Your task to perform on an android device: find snoozed emails in the gmail app Image 0: 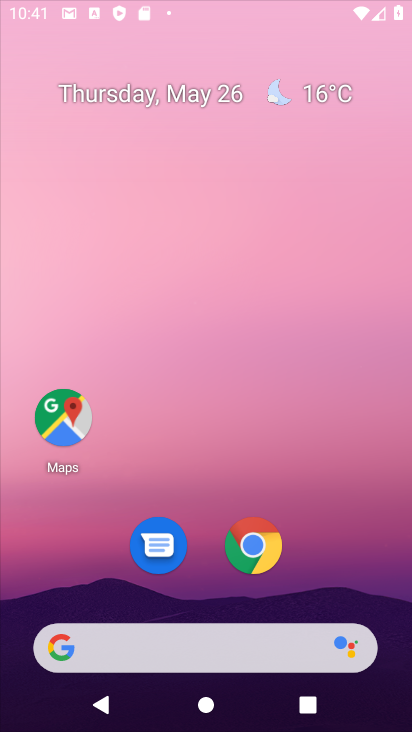
Step 0: press home button
Your task to perform on an android device: find snoozed emails in the gmail app Image 1: 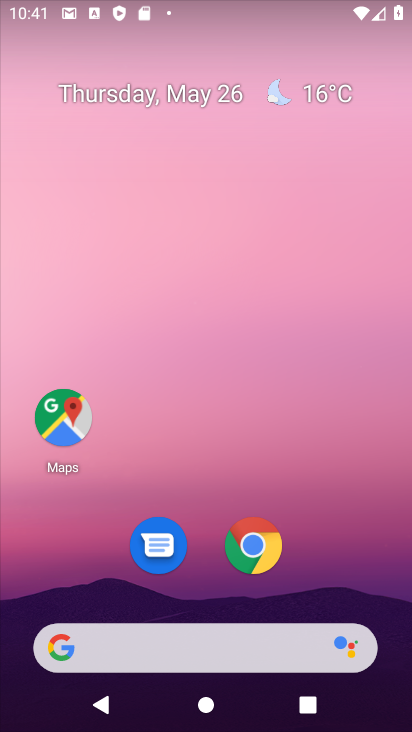
Step 1: drag from (295, 593) to (305, 88)
Your task to perform on an android device: find snoozed emails in the gmail app Image 2: 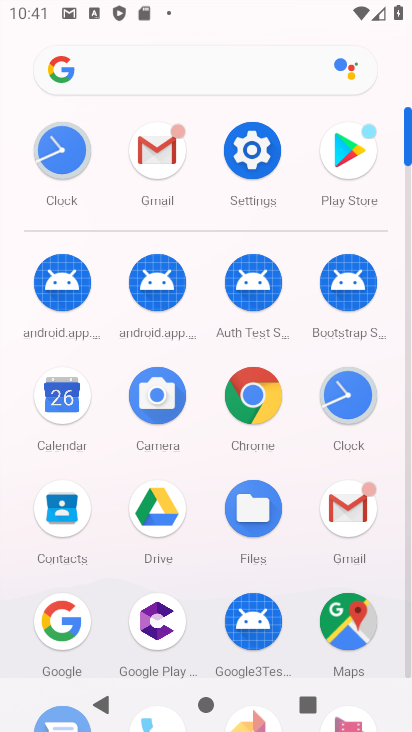
Step 2: click (155, 147)
Your task to perform on an android device: find snoozed emails in the gmail app Image 3: 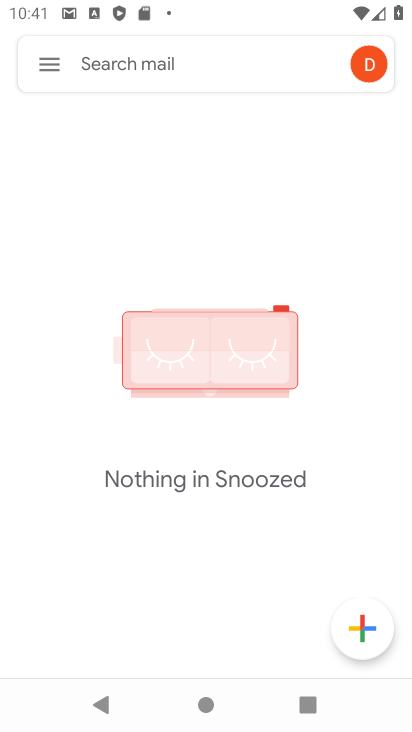
Step 3: click (40, 55)
Your task to perform on an android device: find snoozed emails in the gmail app Image 4: 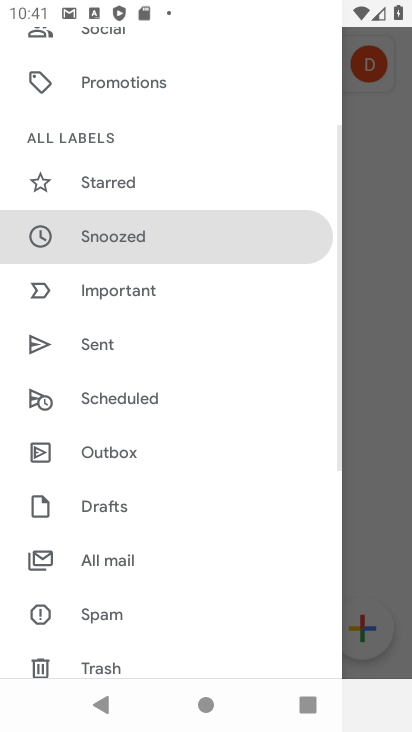
Step 4: click (121, 244)
Your task to perform on an android device: find snoozed emails in the gmail app Image 5: 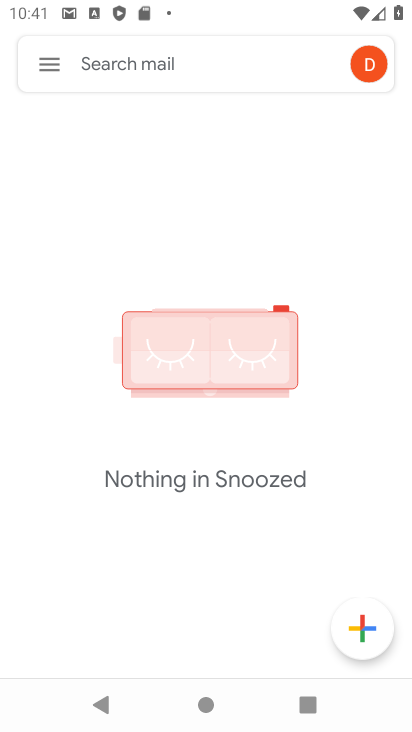
Step 5: task complete